Your task to perform on an android device: What's the weather today? Image 0: 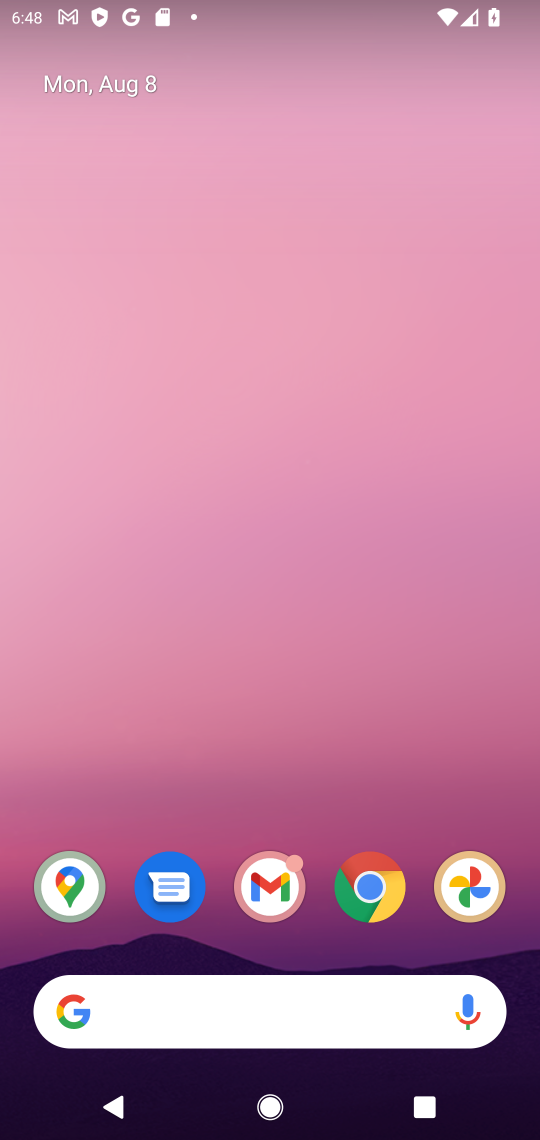
Step 0: drag from (386, 798) to (281, 307)
Your task to perform on an android device: What's the weather today? Image 1: 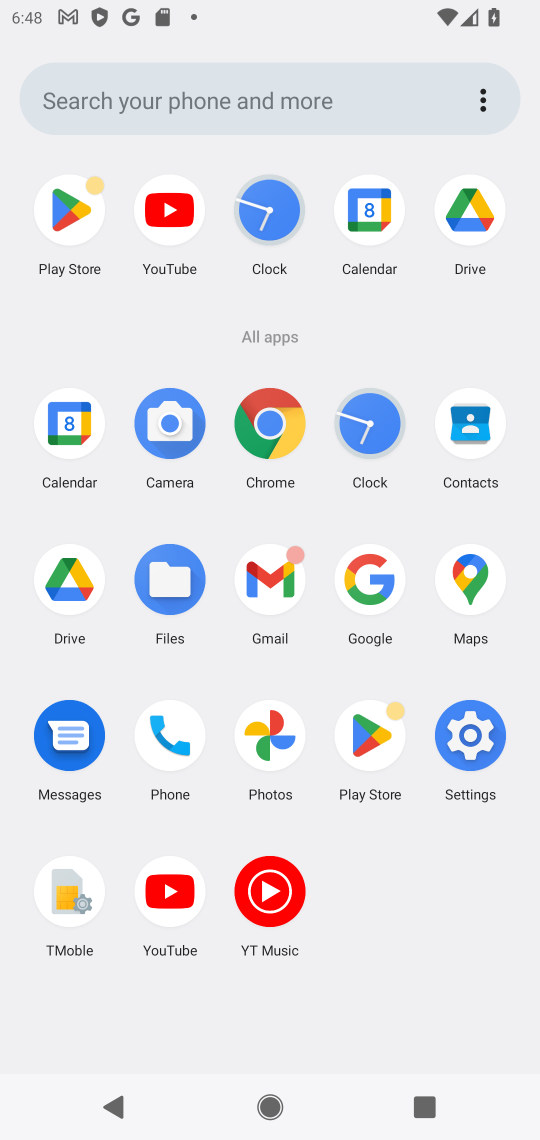
Step 1: click (259, 418)
Your task to perform on an android device: What's the weather today? Image 2: 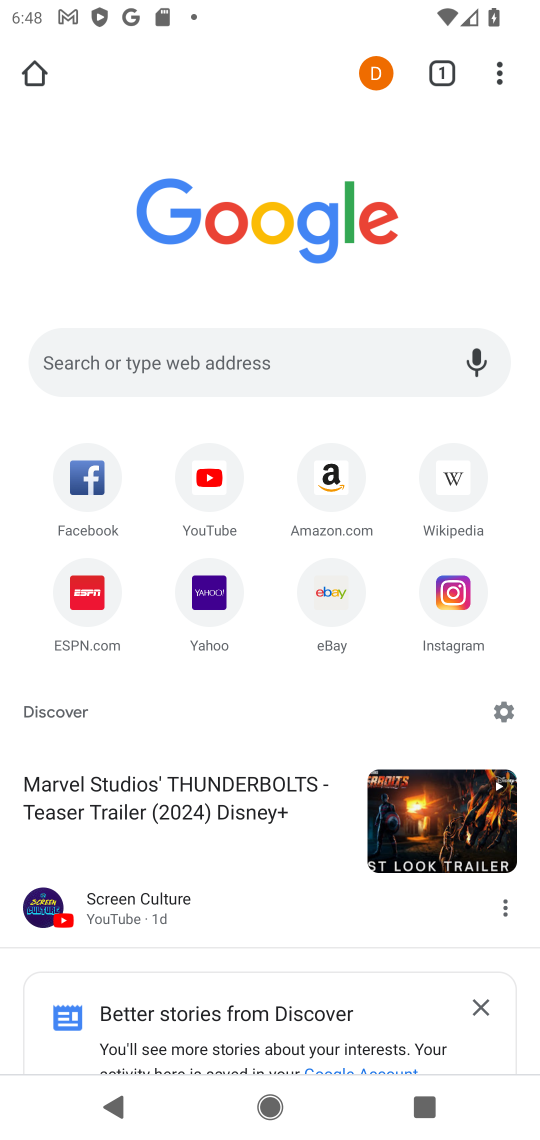
Step 2: click (305, 369)
Your task to perform on an android device: What's the weather today? Image 3: 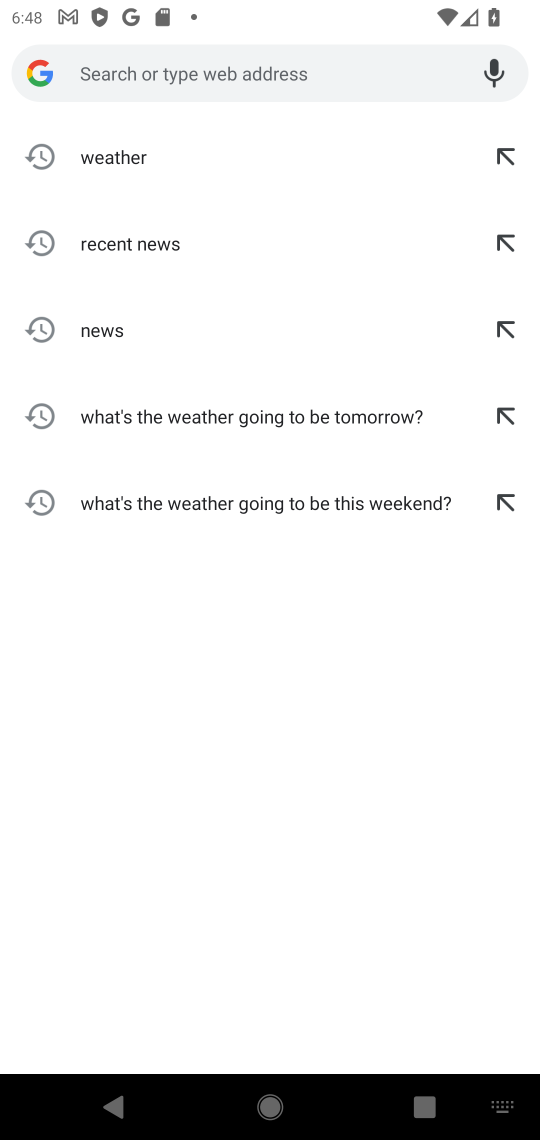
Step 3: type "What's the weather today?"
Your task to perform on an android device: What's the weather today? Image 4: 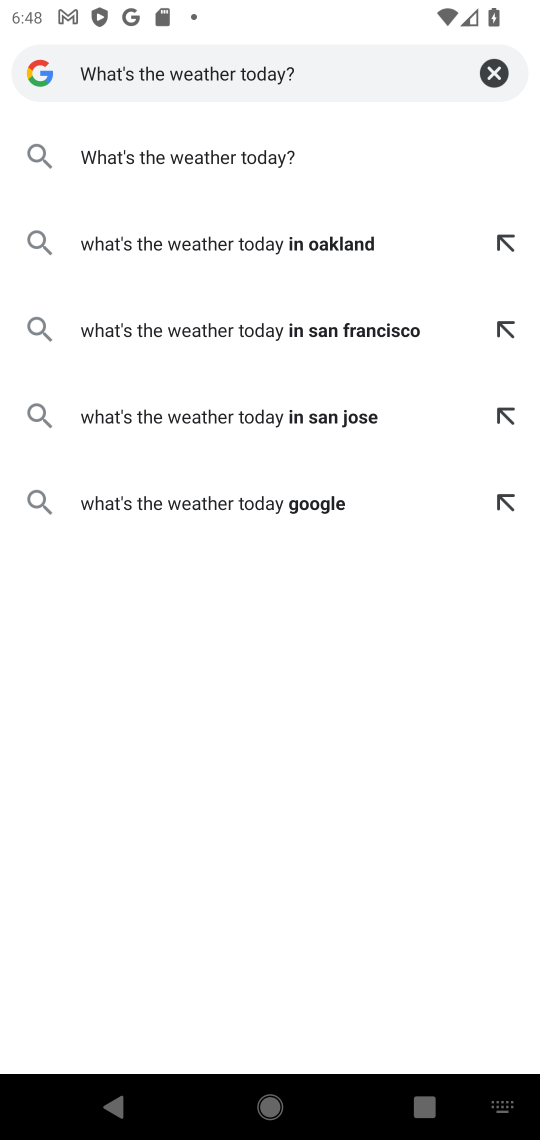
Step 4: click (264, 162)
Your task to perform on an android device: What's the weather today? Image 5: 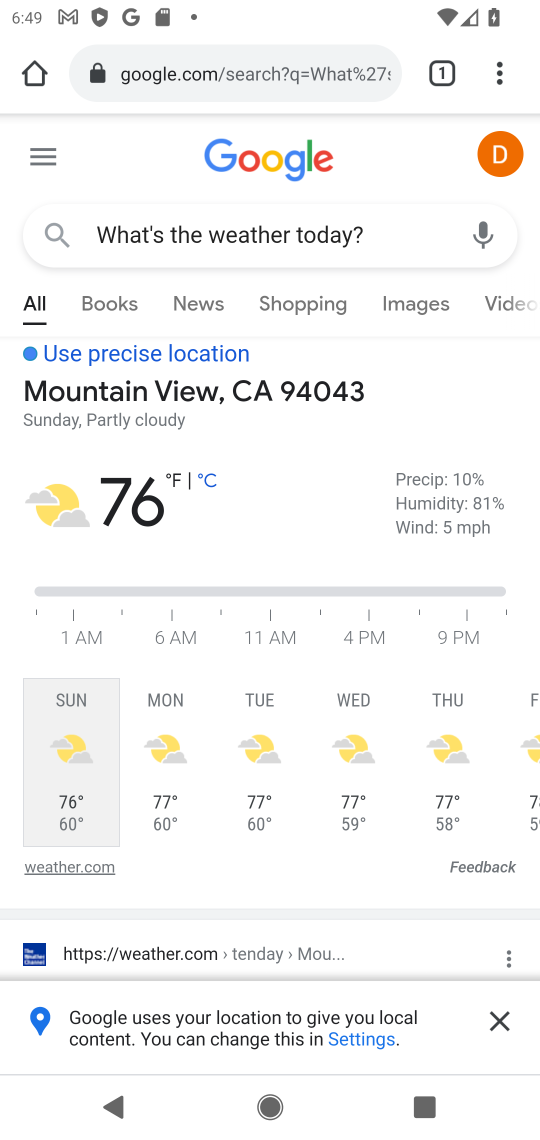
Step 5: task complete